Your task to perform on an android device: stop showing notifications on the lock screen Image 0: 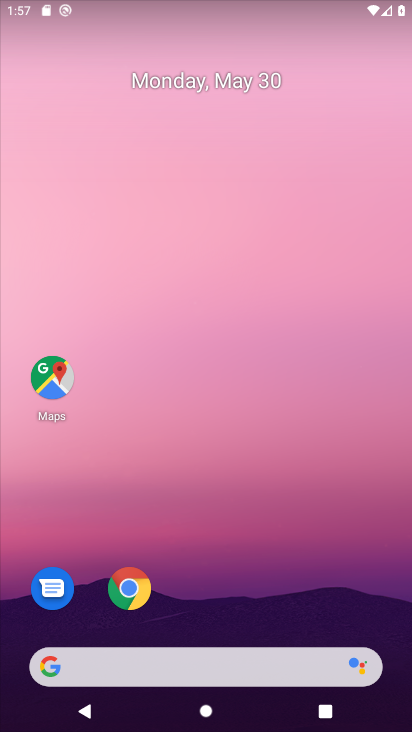
Step 0: drag from (270, 575) to (249, 207)
Your task to perform on an android device: stop showing notifications on the lock screen Image 1: 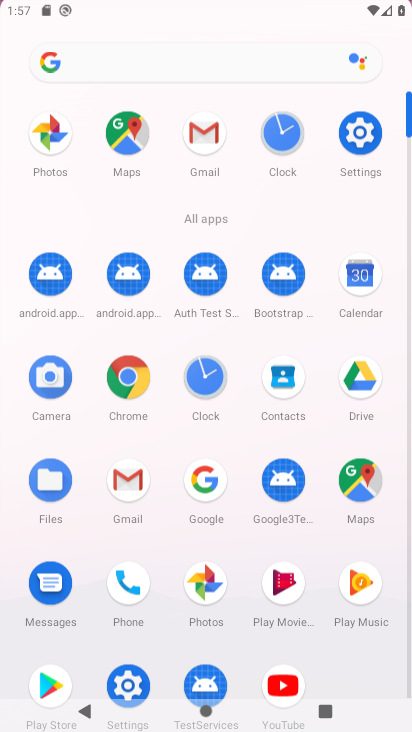
Step 1: drag from (237, 403) to (259, 250)
Your task to perform on an android device: stop showing notifications on the lock screen Image 2: 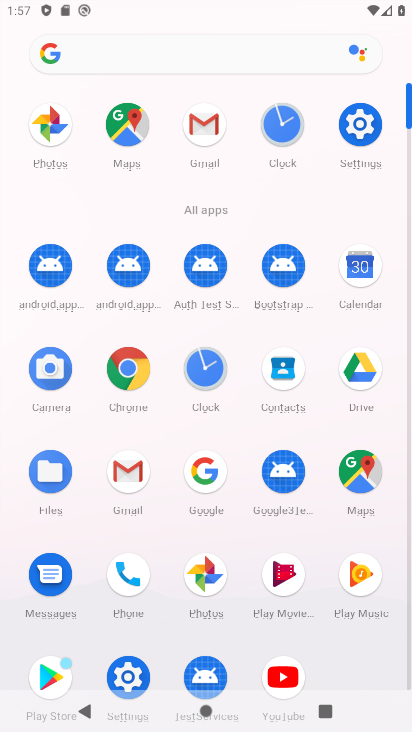
Step 2: click (354, 127)
Your task to perform on an android device: stop showing notifications on the lock screen Image 3: 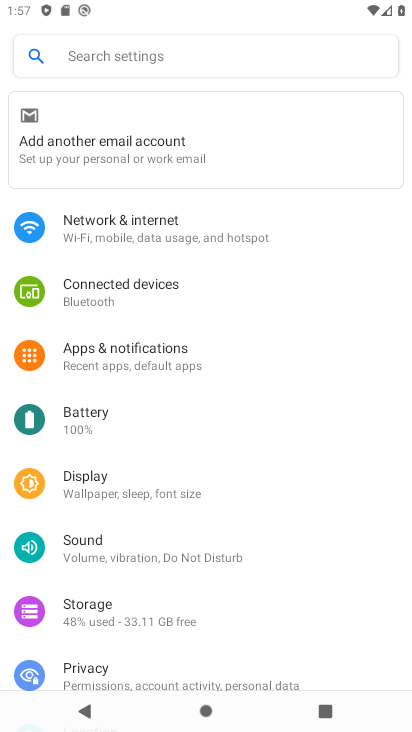
Step 3: click (152, 347)
Your task to perform on an android device: stop showing notifications on the lock screen Image 4: 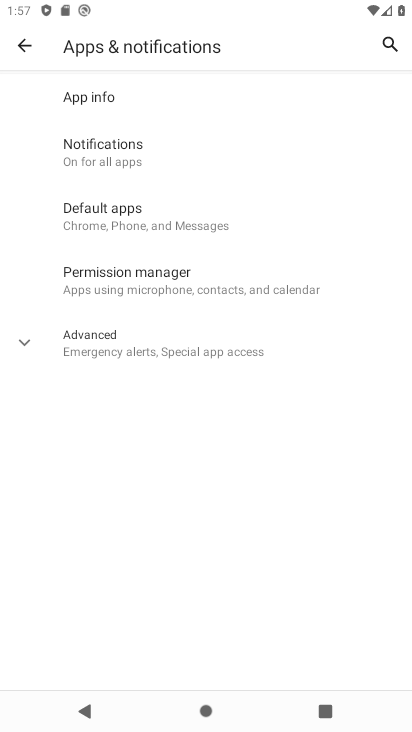
Step 4: click (106, 141)
Your task to perform on an android device: stop showing notifications on the lock screen Image 5: 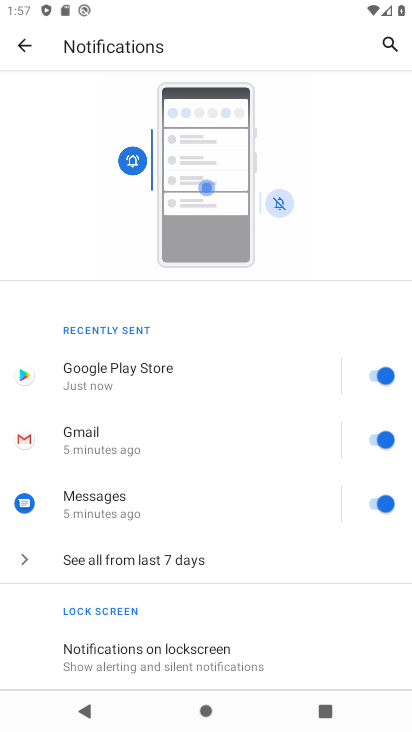
Step 5: click (190, 655)
Your task to perform on an android device: stop showing notifications on the lock screen Image 6: 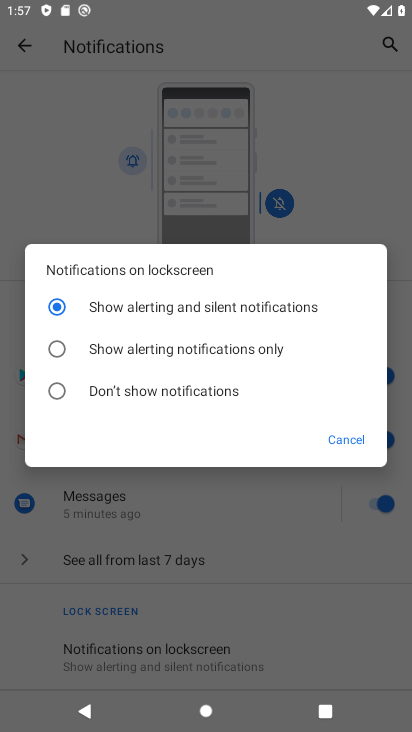
Step 6: click (144, 379)
Your task to perform on an android device: stop showing notifications on the lock screen Image 7: 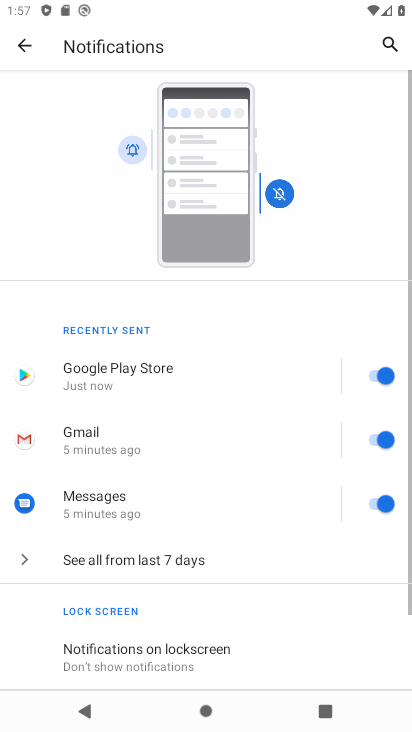
Step 7: click (354, 444)
Your task to perform on an android device: stop showing notifications on the lock screen Image 8: 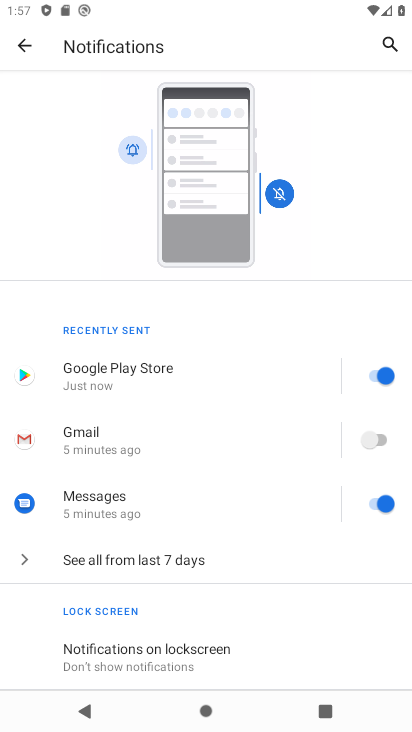
Step 8: task complete